Your task to perform on an android device: turn off picture-in-picture Image 0: 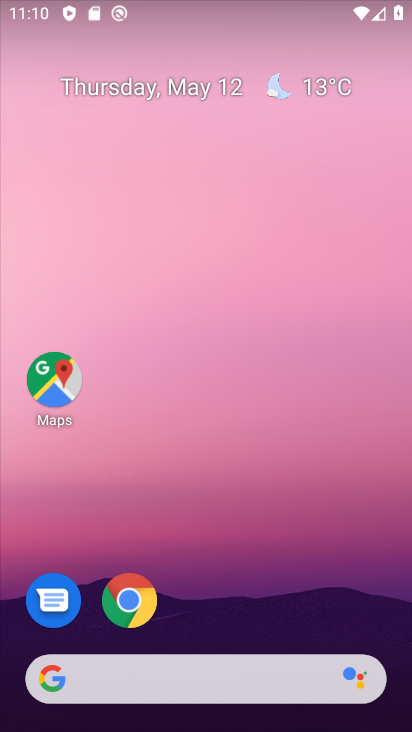
Step 0: drag from (390, 629) to (300, 51)
Your task to perform on an android device: turn off picture-in-picture Image 1: 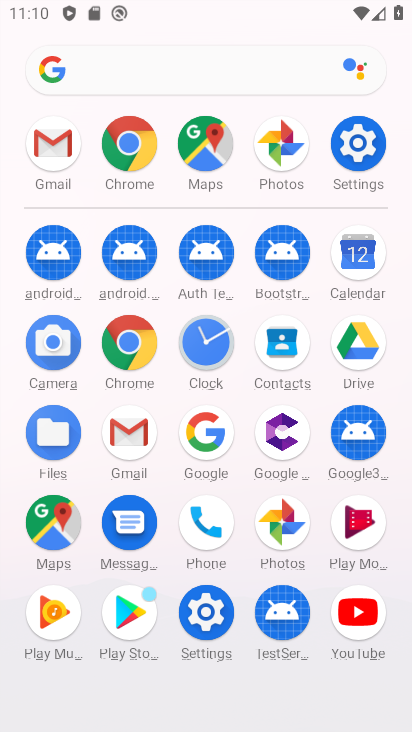
Step 1: click (207, 614)
Your task to perform on an android device: turn off picture-in-picture Image 2: 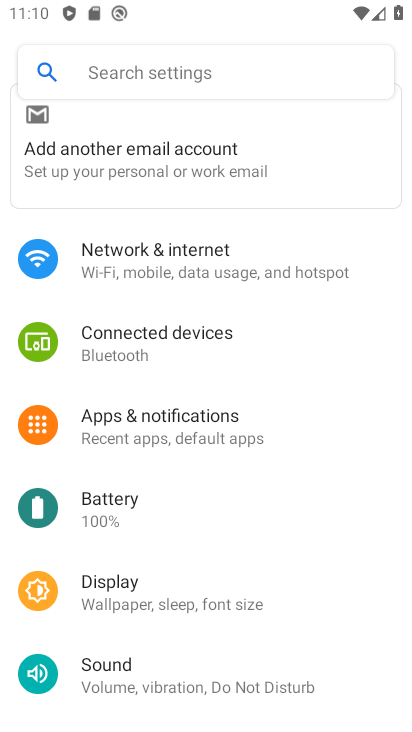
Step 2: click (153, 422)
Your task to perform on an android device: turn off picture-in-picture Image 3: 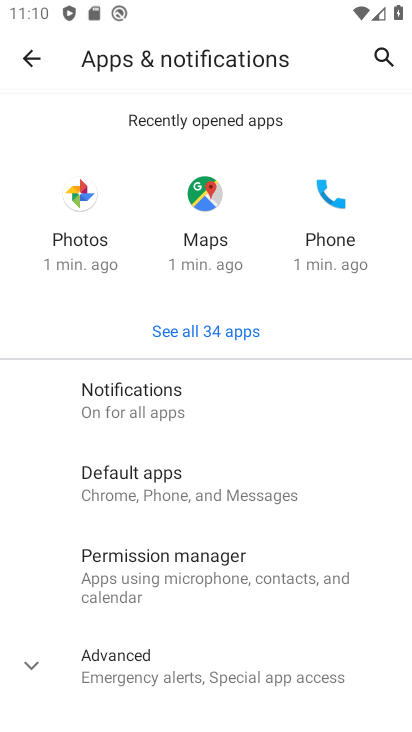
Step 3: click (31, 664)
Your task to perform on an android device: turn off picture-in-picture Image 4: 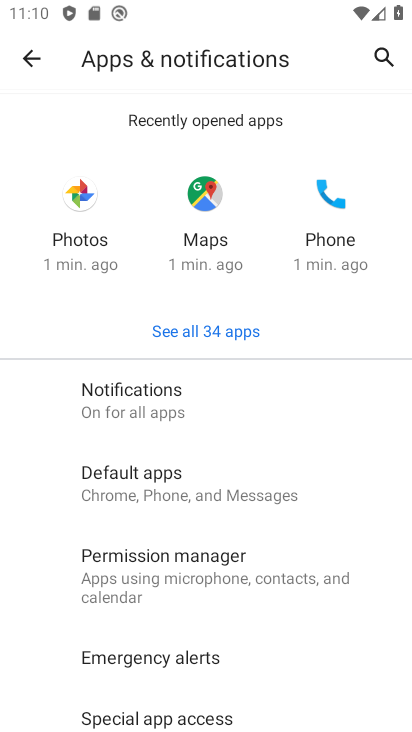
Step 4: drag from (273, 707) to (321, 321)
Your task to perform on an android device: turn off picture-in-picture Image 5: 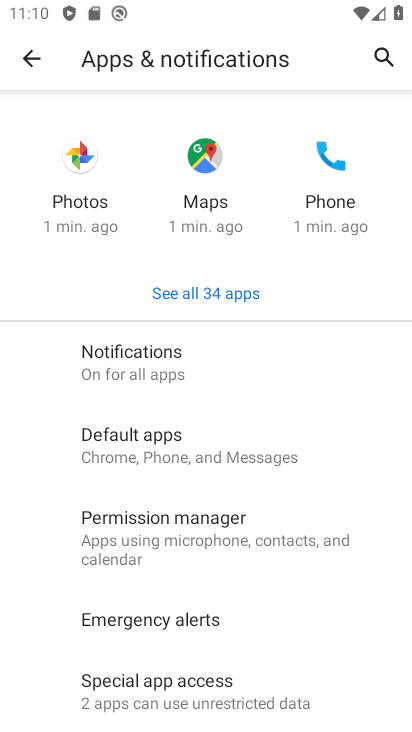
Step 5: drag from (296, 606) to (296, 389)
Your task to perform on an android device: turn off picture-in-picture Image 6: 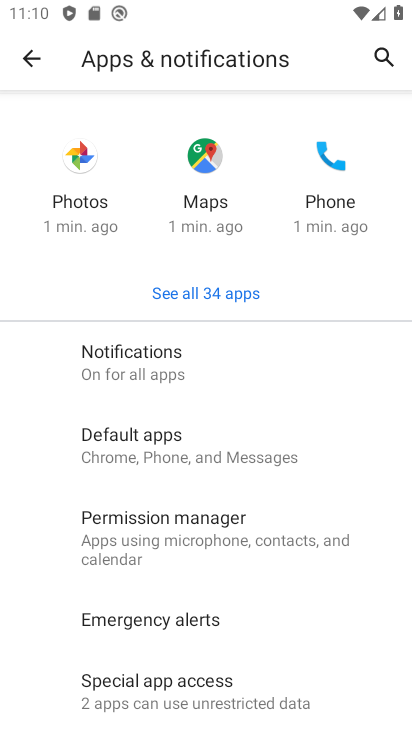
Step 6: click (151, 689)
Your task to perform on an android device: turn off picture-in-picture Image 7: 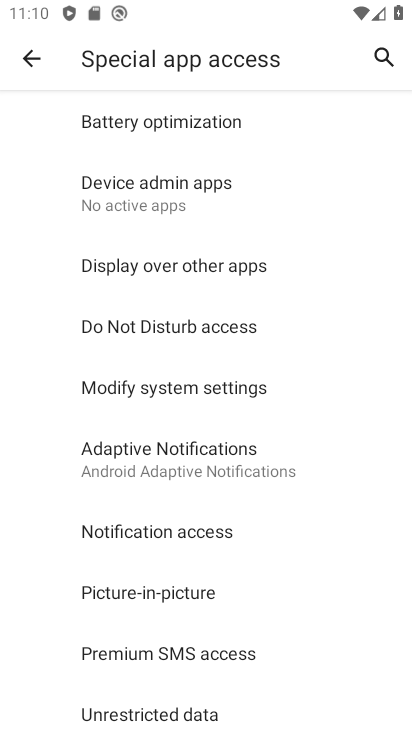
Step 7: click (146, 592)
Your task to perform on an android device: turn off picture-in-picture Image 8: 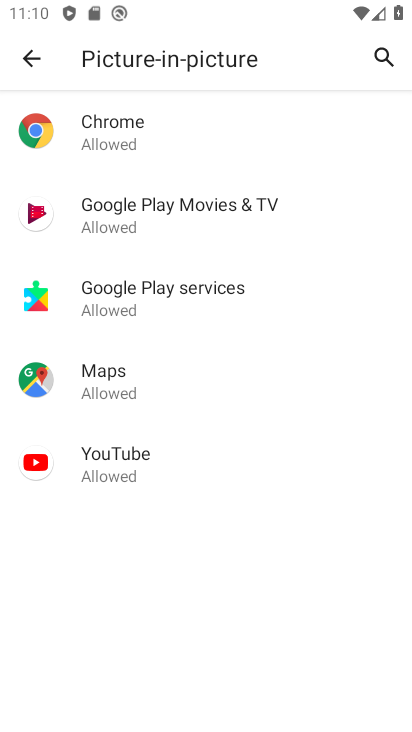
Step 8: click (123, 464)
Your task to perform on an android device: turn off picture-in-picture Image 9: 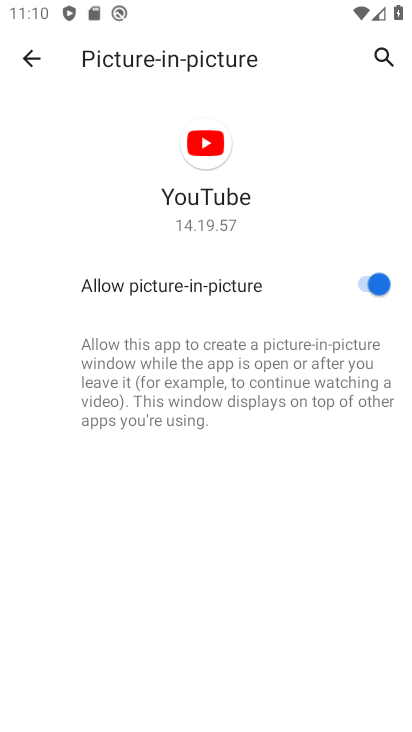
Step 9: click (360, 287)
Your task to perform on an android device: turn off picture-in-picture Image 10: 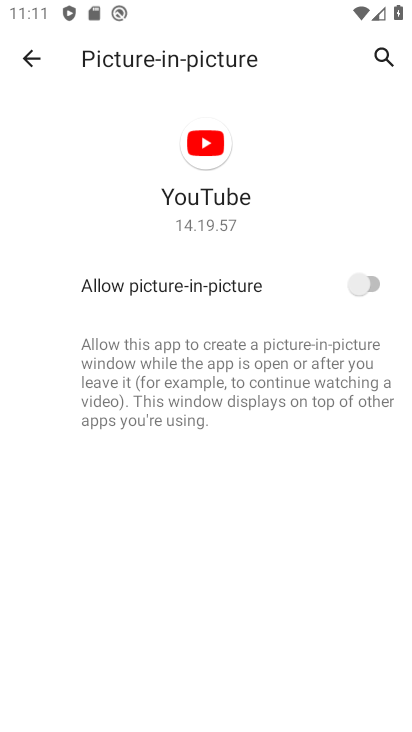
Step 10: task complete